Your task to perform on an android device: stop showing notifications on the lock screen Image 0: 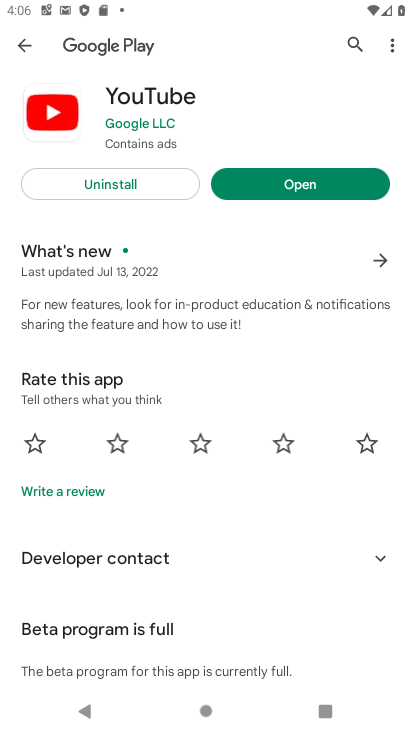
Step 0: press home button
Your task to perform on an android device: stop showing notifications on the lock screen Image 1: 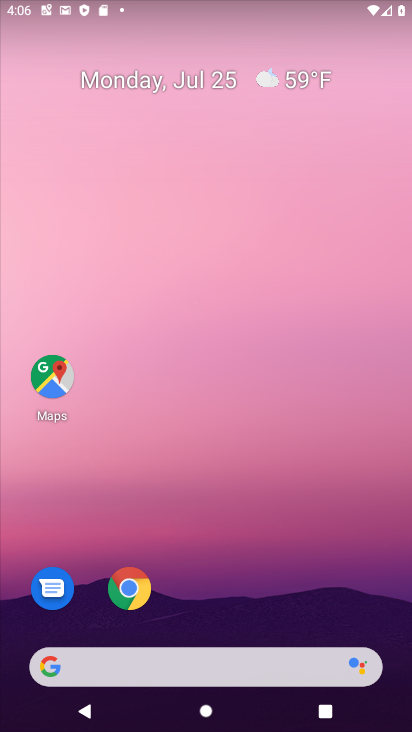
Step 1: drag from (241, 575) to (267, 134)
Your task to perform on an android device: stop showing notifications on the lock screen Image 2: 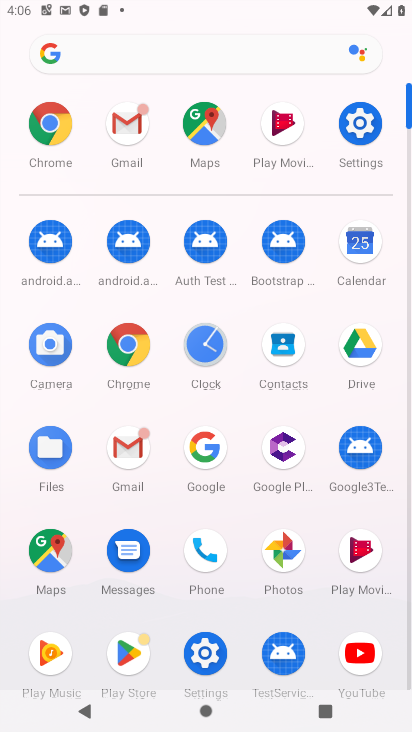
Step 2: click (202, 642)
Your task to perform on an android device: stop showing notifications on the lock screen Image 3: 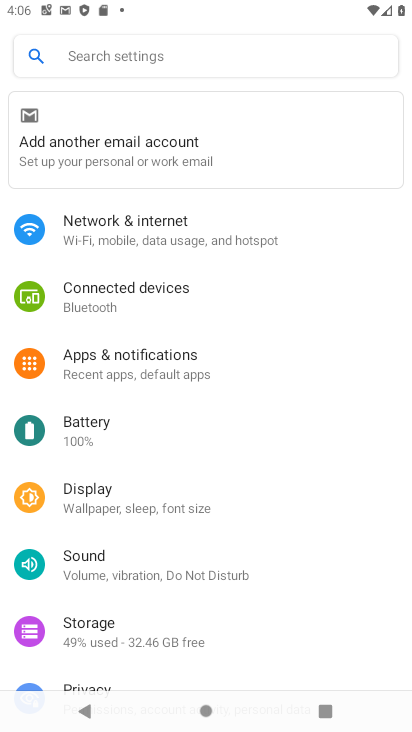
Step 3: click (142, 368)
Your task to perform on an android device: stop showing notifications on the lock screen Image 4: 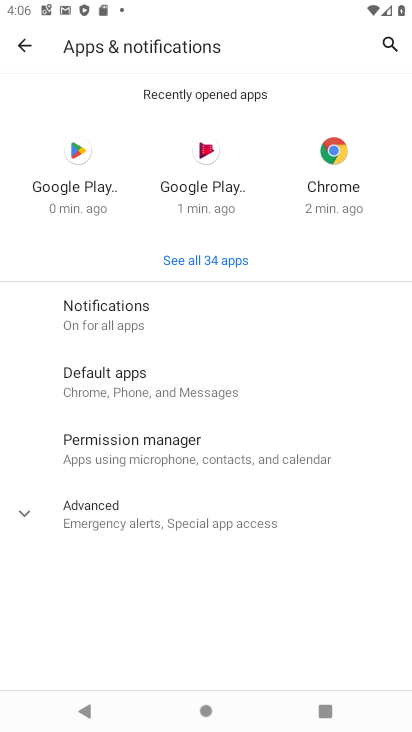
Step 4: click (136, 313)
Your task to perform on an android device: stop showing notifications on the lock screen Image 5: 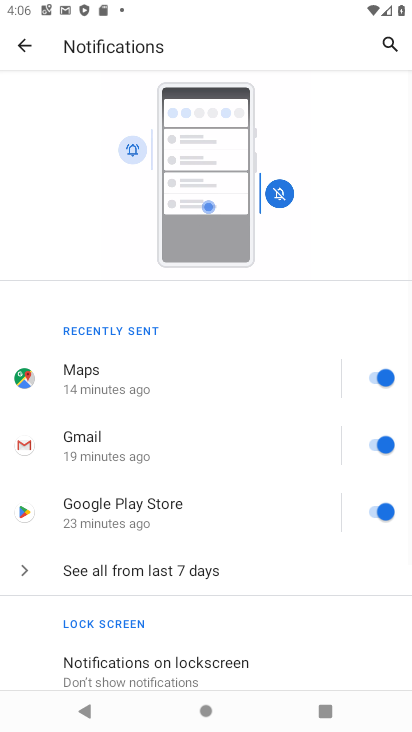
Step 5: click (191, 665)
Your task to perform on an android device: stop showing notifications on the lock screen Image 6: 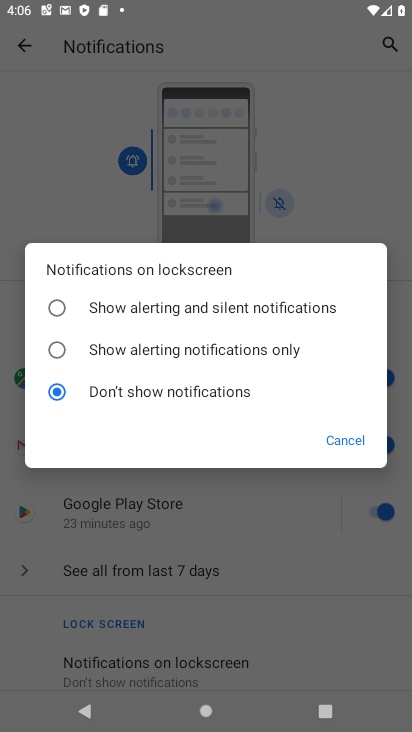
Step 6: task complete